Your task to perform on an android device: turn on airplane mode Image 0: 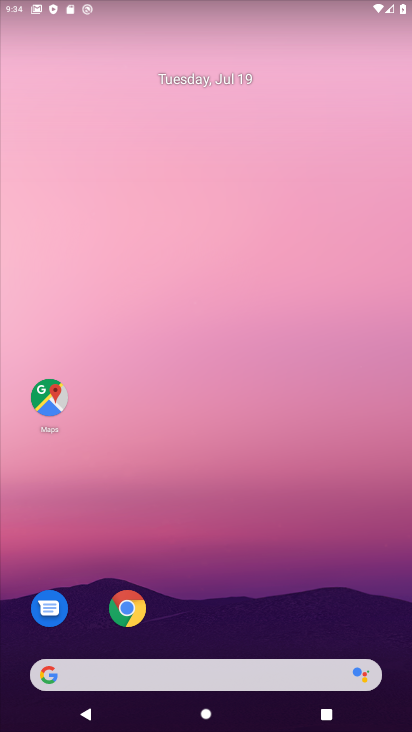
Step 0: drag from (283, 558) to (220, 367)
Your task to perform on an android device: turn on airplane mode Image 1: 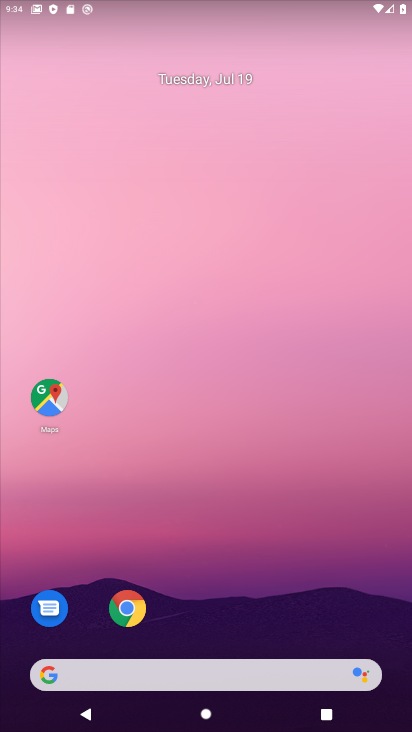
Step 1: drag from (310, 630) to (233, 156)
Your task to perform on an android device: turn on airplane mode Image 2: 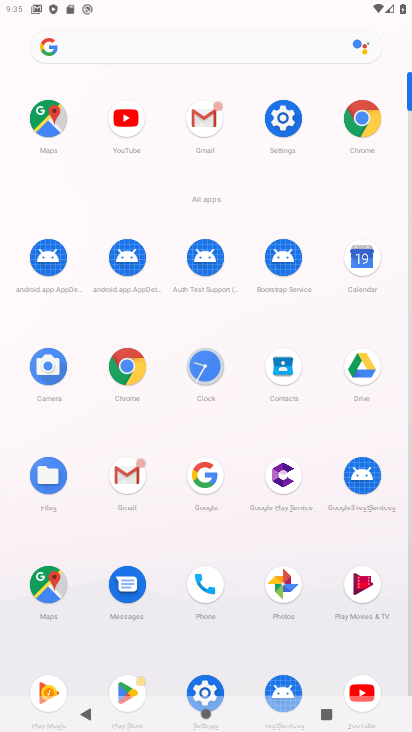
Step 2: click (290, 115)
Your task to perform on an android device: turn on airplane mode Image 3: 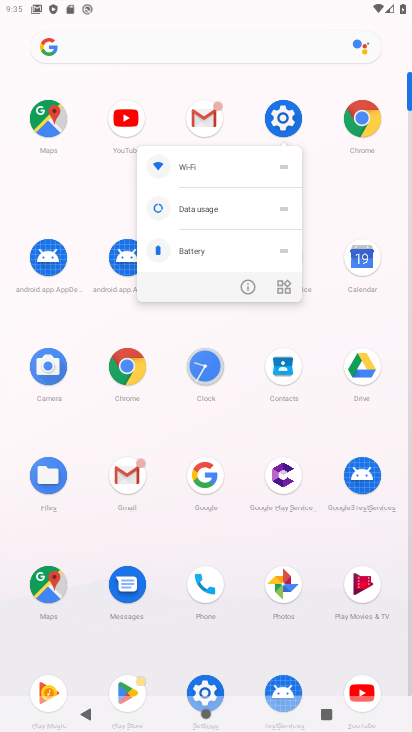
Step 3: click (276, 117)
Your task to perform on an android device: turn on airplane mode Image 4: 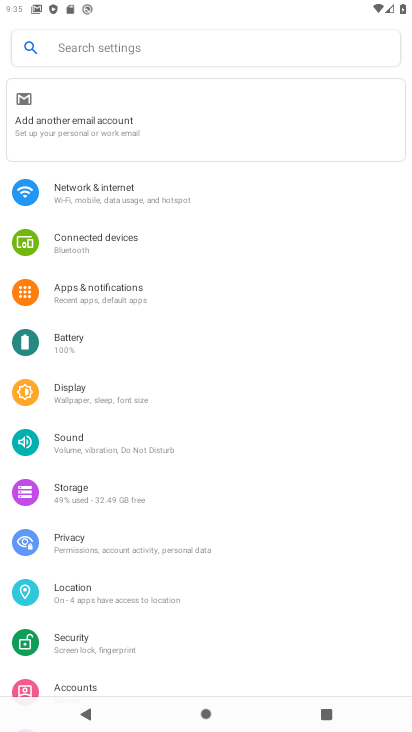
Step 4: click (81, 194)
Your task to perform on an android device: turn on airplane mode Image 5: 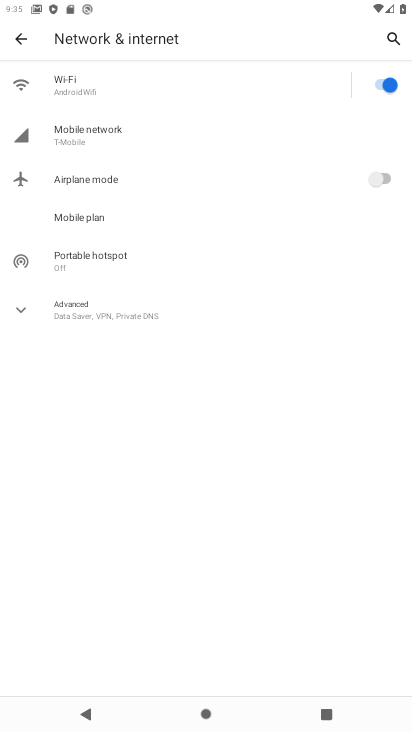
Step 5: click (375, 173)
Your task to perform on an android device: turn on airplane mode Image 6: 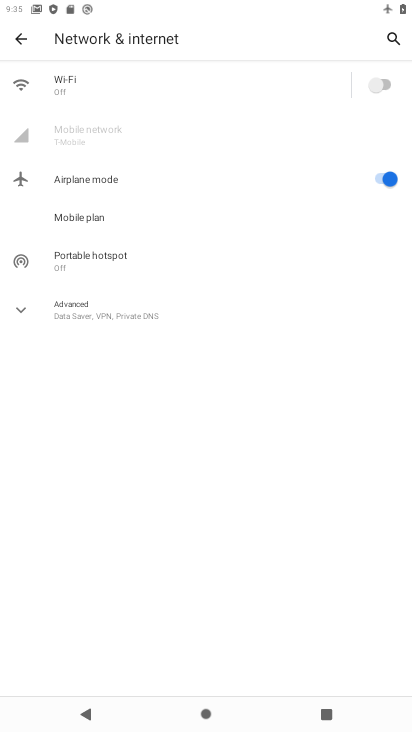
Step 6: task complete